Your task to perform on an android device: Open sound settings Image 0: 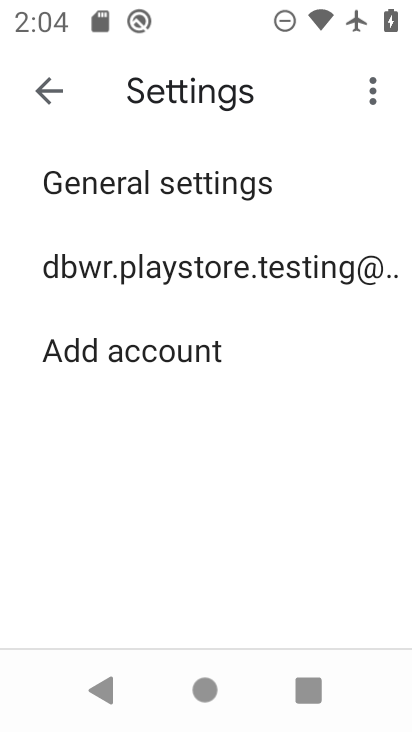
Step 0: press home button
Your task to perform on an android device: Open sound settings Image 1: 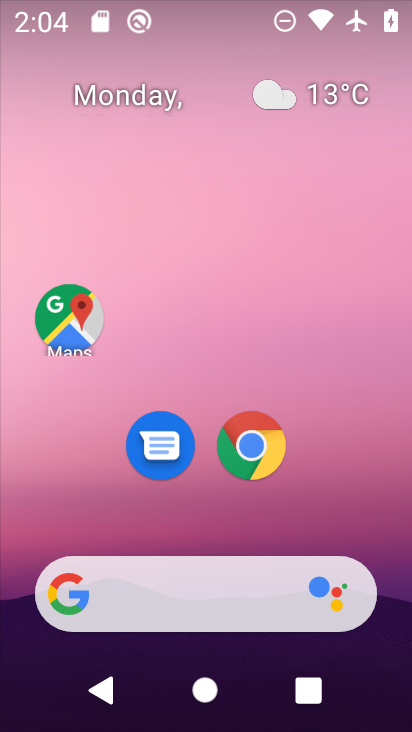
Step 1: drag from (376, 641) to (296, 95)
Your task to perform on an android device: Open sound settings Image 2: 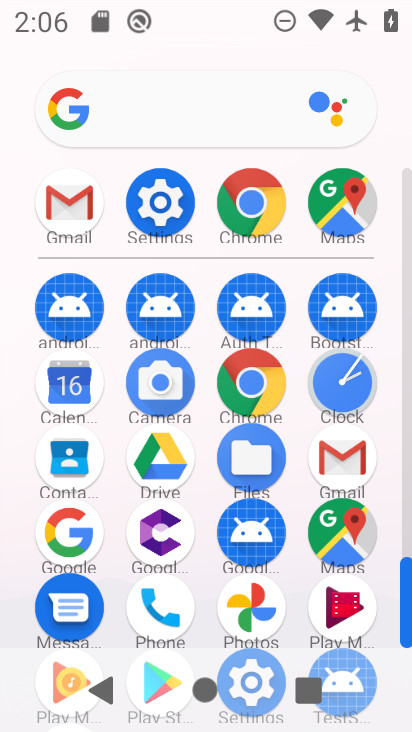
Step 2: drag from (295, 611) to (312, 218)
Your task to perform on an android device: Open sound settings Image 3: 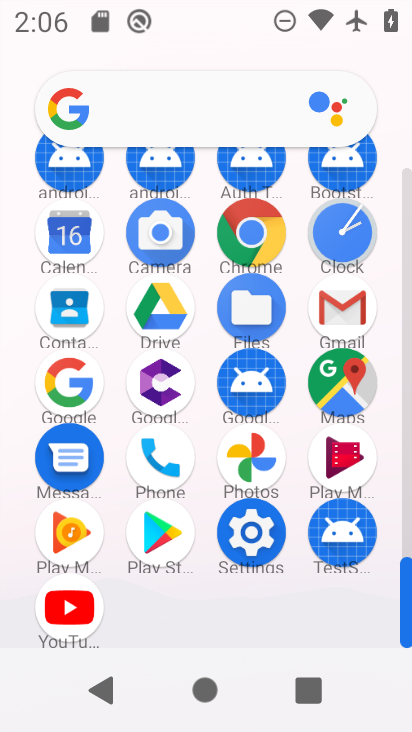
Step 3: click (263, 536)
Your task to perform on an android device: Open sound settings Image 4: 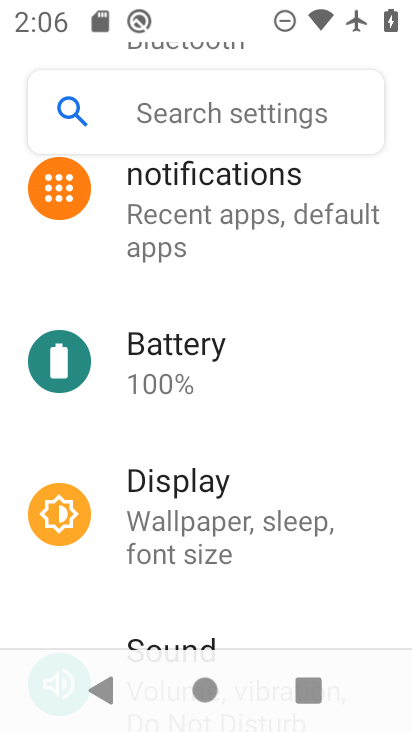
Step 4: drag from (229, 576) to (255, 287)
Your task to perform on an android device: Open sound settings Image 5: 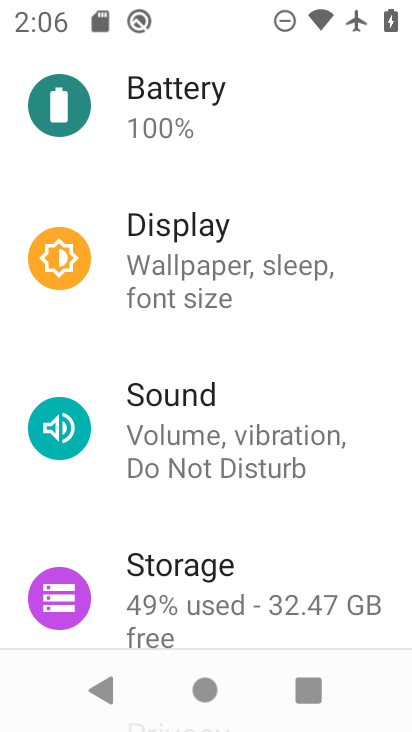
Step 5: click (214, 461)
Your task to perform on an android device: Open sound settings Image 6: 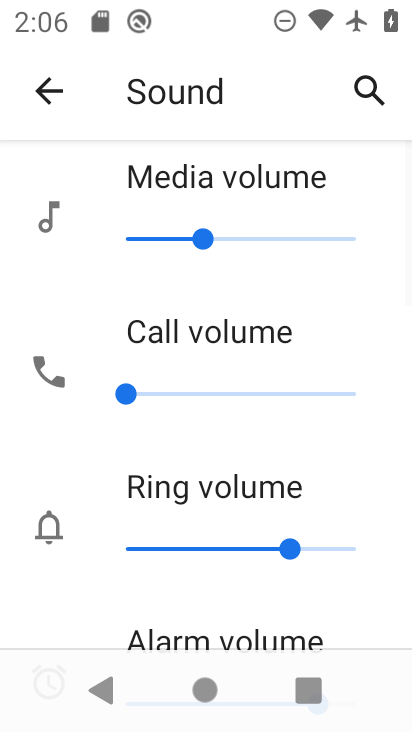
Step 6: task complete